Your task to perform on an android device: add a contact Image 0: 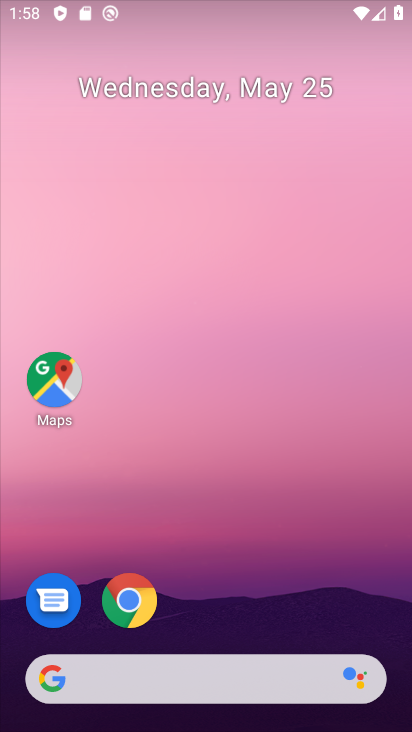
Step 0: click (267, 117)
Your task to perform on an android device: add a contact Image 1: 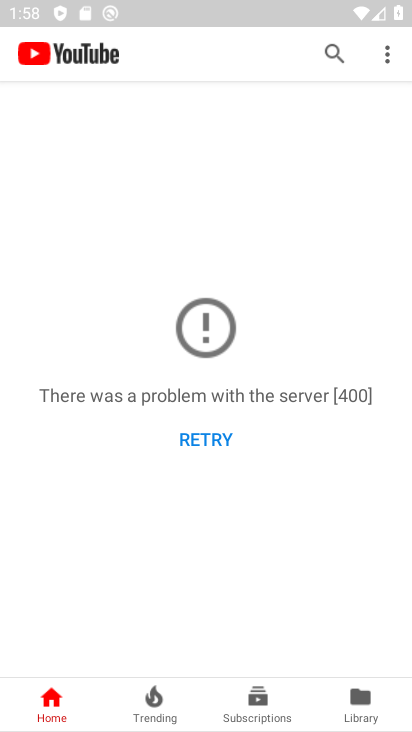
Step 1: press home button
Your task to perform on an android device: add a contact Image 2: 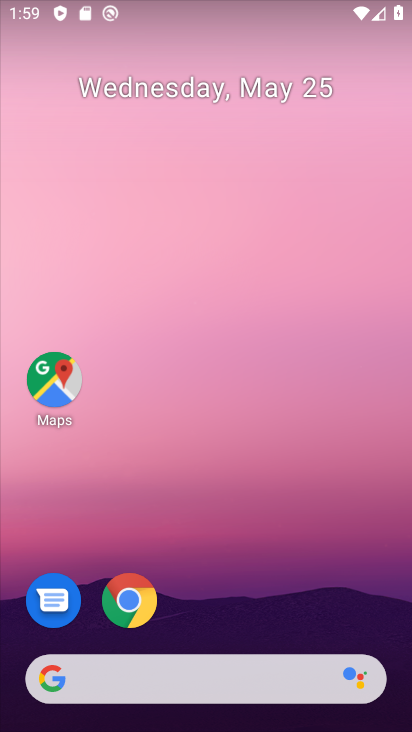
Step 2: drag from (259, 586) to (170, 70)
Your task to perform on an android device: add a contact Image 3: 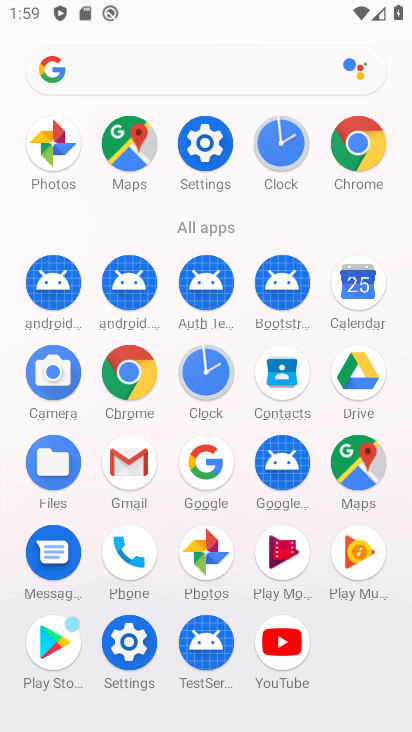
Step 3: drag from (245, 535) to (239, 664)
Your task to perform on an android device: add a contact Image 4: 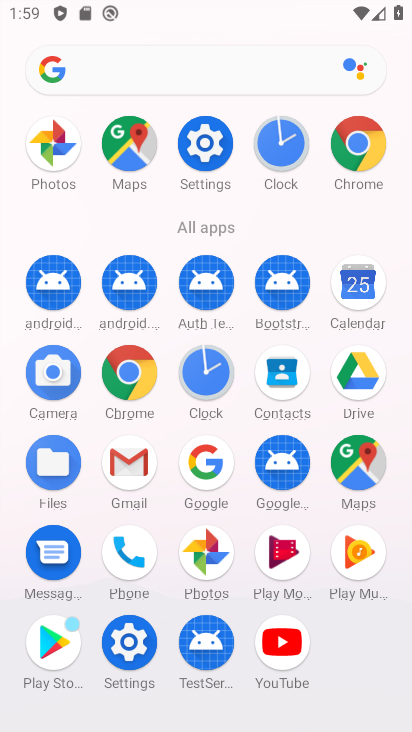
Step 4: click (292, 384)
Your task to perform on an android device: add a contact Image 5: 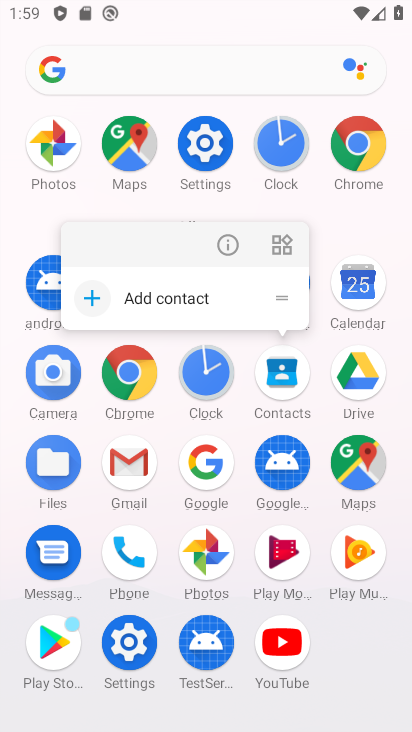
Step 5: click (282, 379)
Your task to perform on an android device: add a contact Image 6: 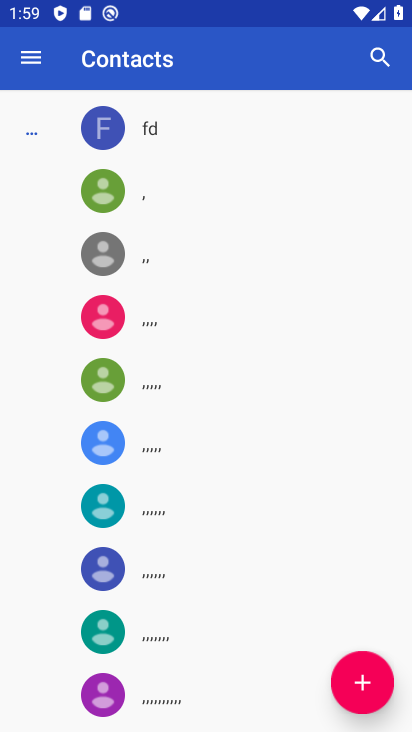
Step 6: click (377, 672)
Your task to perform on an android device: add a contact Image 7: 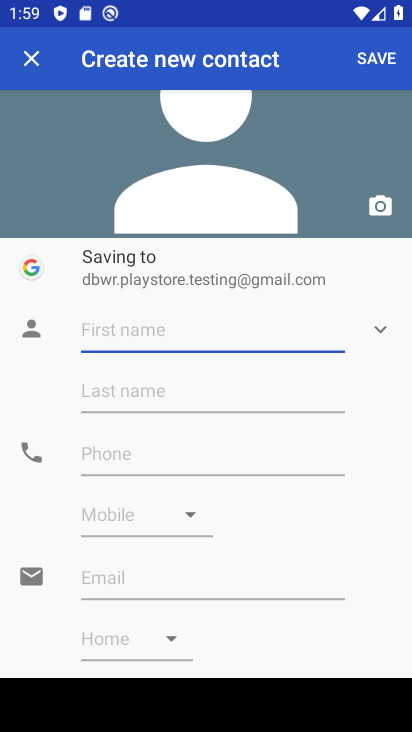
Step 7: type "china"
Your task to perform on an android device: add a contact Image 8: 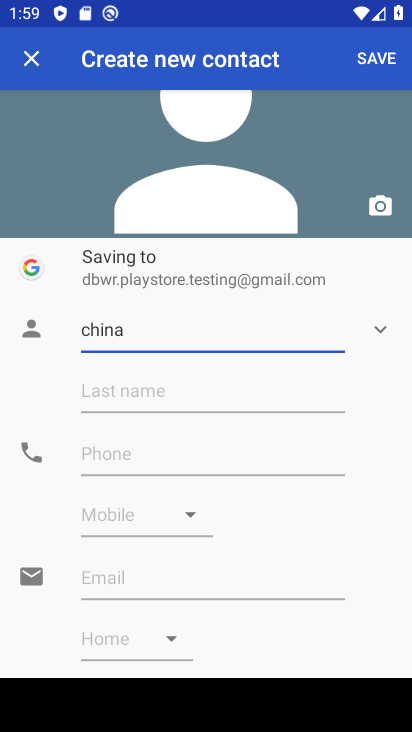
Step 8: click (385, 53)
Your task to perform on an android device: add a contact Image 9: 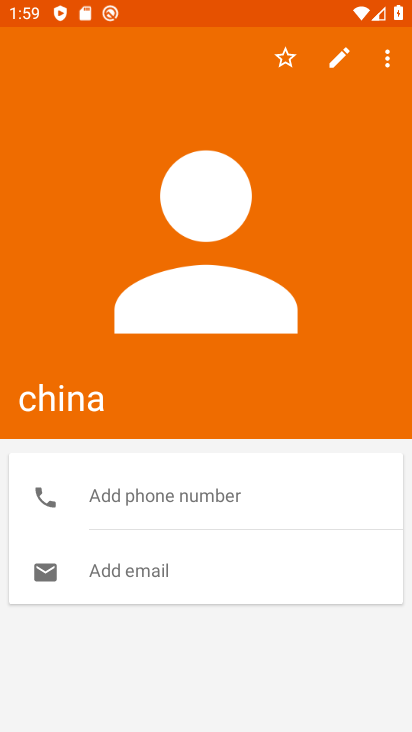
Step 9: task complete